Your task to perform on an android device: Search for a 1/4" hex shank drill bit on Lowe's. Image 0: 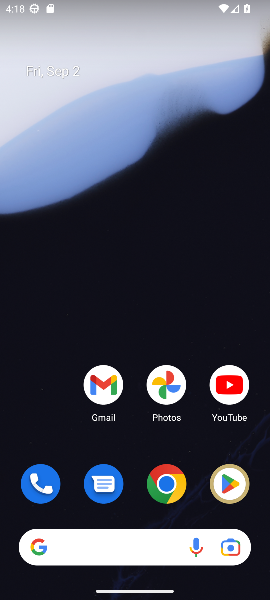
Step 0: click (166, 489)
Your task to perform on an android device: Search for a 1/4" hex shank drill bit on Lowe's. Image 1: 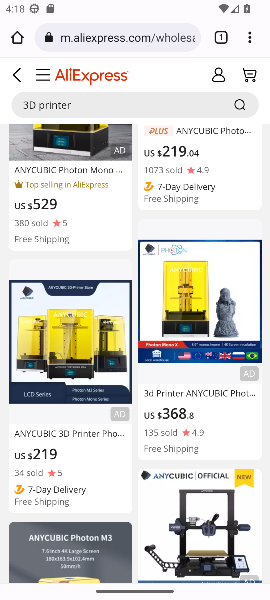
Step 1: click (165, 37)
Your task to perform on an android device: Search for a 1/4" hex shank drill bit on Lowe's. Image 2: 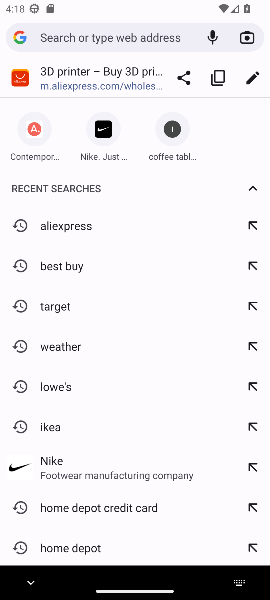
Step 2: type " Lowe's"
Your task to perform on an android device: Search for a 1/4" hex shank drill bit on Lowe's. Image 3: 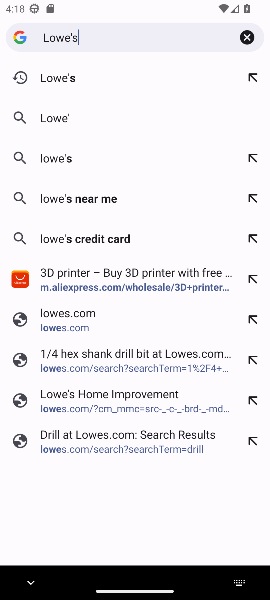
Step 3: press enter
Your task to perform on an android device: Search for a 1/4" hex shank drill bit on Lowe's. Image 4: 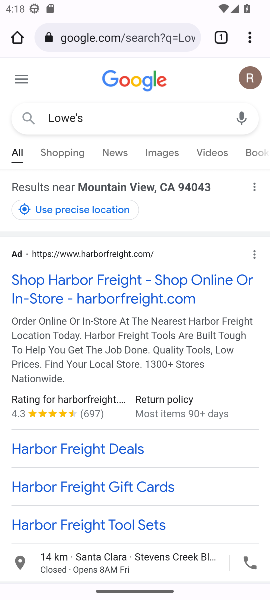
Step 4: drag from (147, 471) to (193, 233)
Your task to perform on an android device: Search for a 1/4" hex shank drill bit on Lowe's. Image 5: 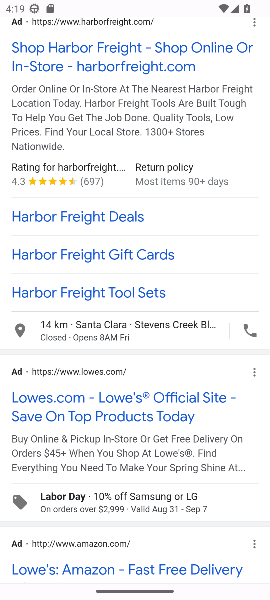
Step 5: click (105, 409)
Your task to perform on an android device: Search for a 1/4" hex shank drill bit on Lowe's. Image 6: 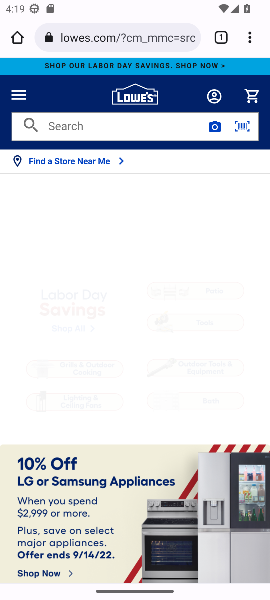
Step 6: click (126, 123)
Your task to perform on an android device: Search for a 1/4" hex shank drill bit on Lowe's. Image 7: 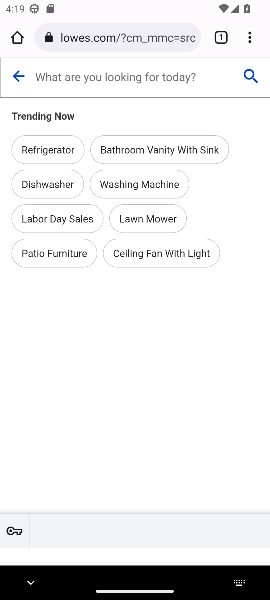
Step 7: type "1/4 hex shank drill bit"
Your task to perform on an android device: Search for a 1/4" hex shank drill bit on Lowe's. Image 8: 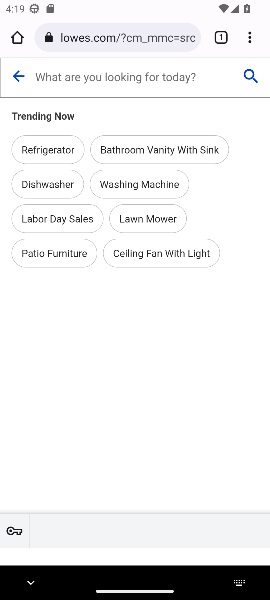
Step 8: press enter
Your task to perform on an android device: Search for a 1/4" hex shank drill bit on Lowe's. Image 9: 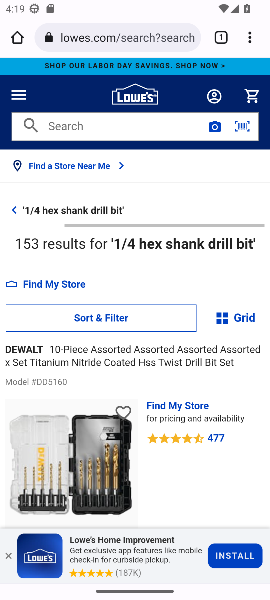
Step 9: task complete